Your task to perform on an android device: What's on my calendar tomorrow? Image 0: 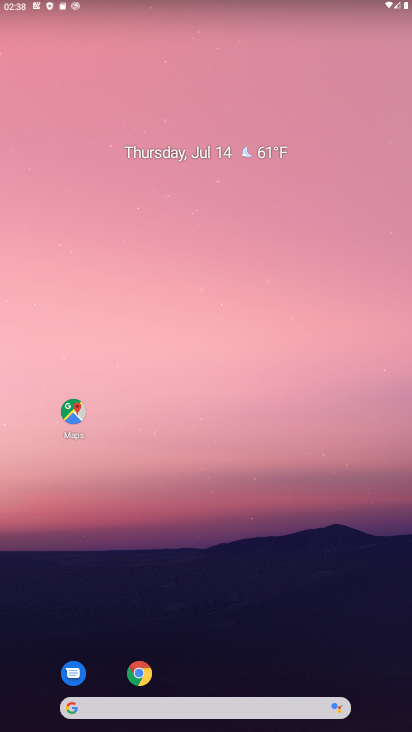
Step 0: drag from (257, 608) to (289, 145)
Your task to perform on an android device: What's on my calendar tomorrow? Image 1: 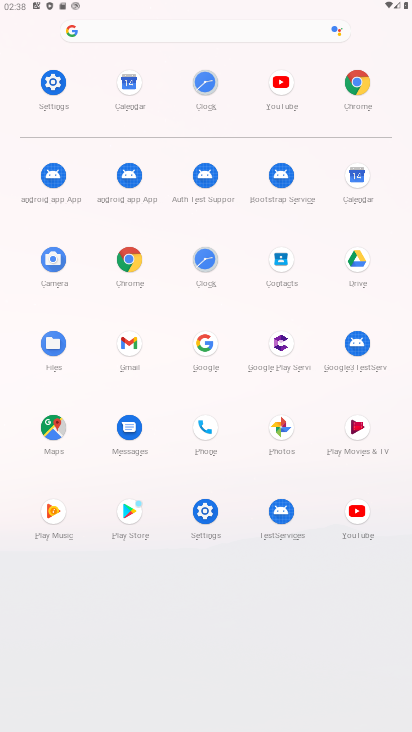
Step 1: click (135, 83)
Your task to perform on an android device: What's on my calendar tomorrow? Image 2: 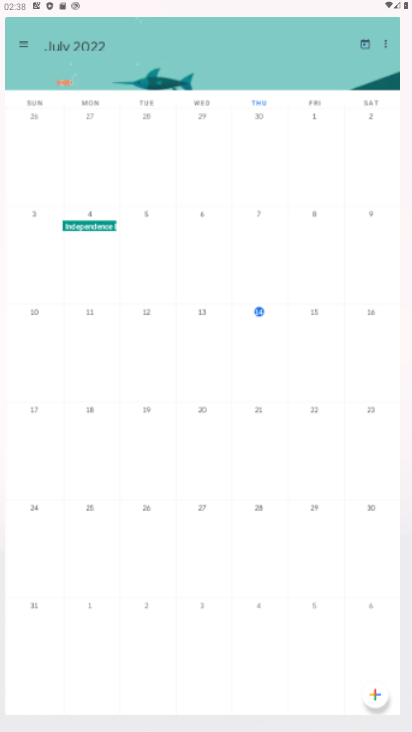
Step 2: task complete